Your task to perform on an android device: Set the phone to "Do not disturb". Image 0: 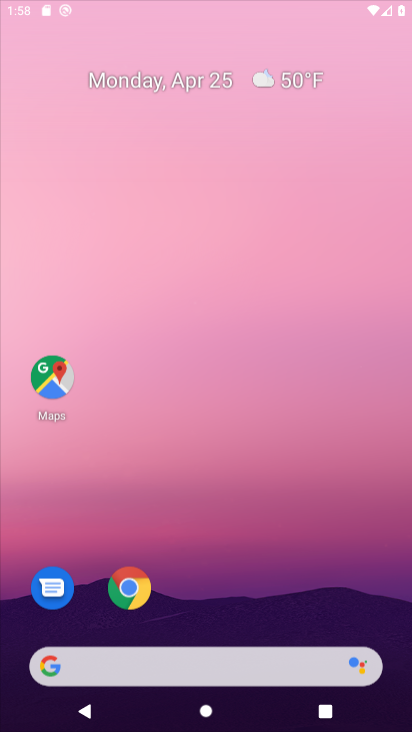
Step 0: click (141, 585)
Your task to perform on an android device: Set the phone to "Do not disturb". Image 1: 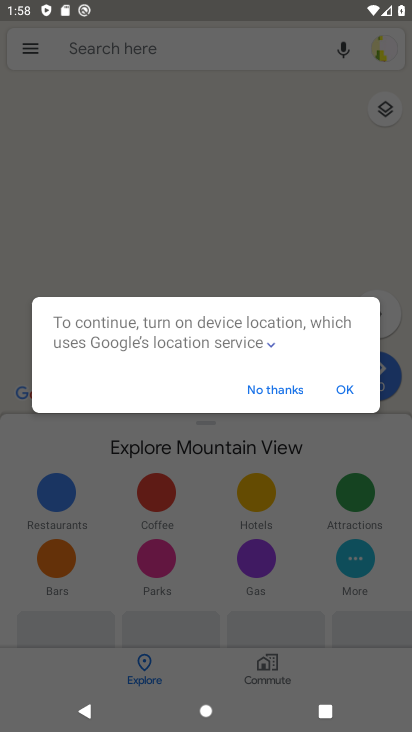
Step 1: press back button
Your task to perform on an android device: Set the phone to "Do not disturb". Image 2: 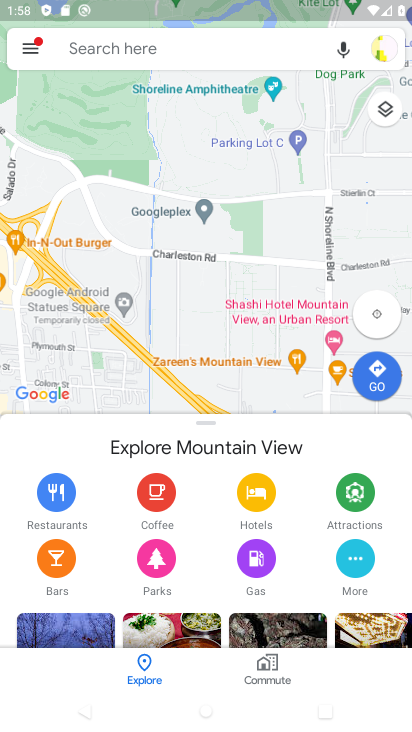
Step 2: press back button
Your task to perform on an android device: Set the phone to "Do not disturb". Image 3: 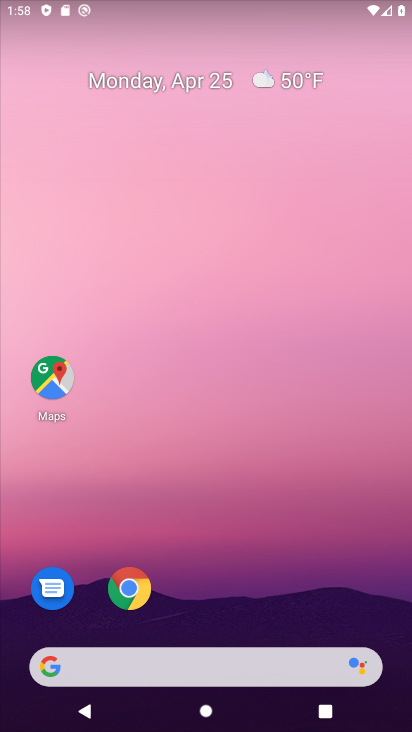
Step 3: drag from (182, 652) to (211, 0)
Your task to perform on an android device: Set the phone to "Do not disturb". Image 4: 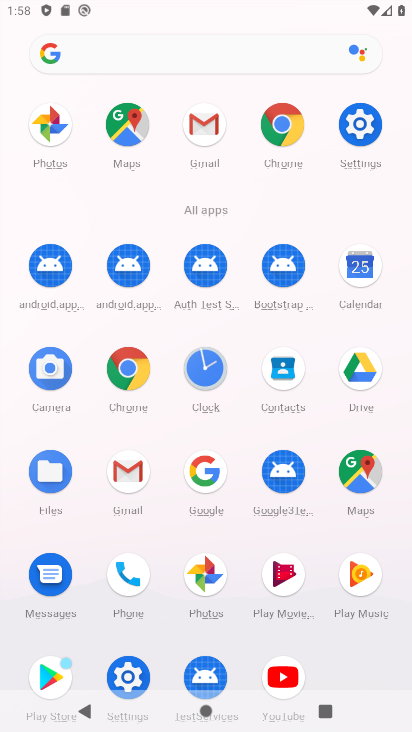
Step 4: click (127, 685)
Your task to perform on an android device: Set the phone to "Do not disturb". Image 5: 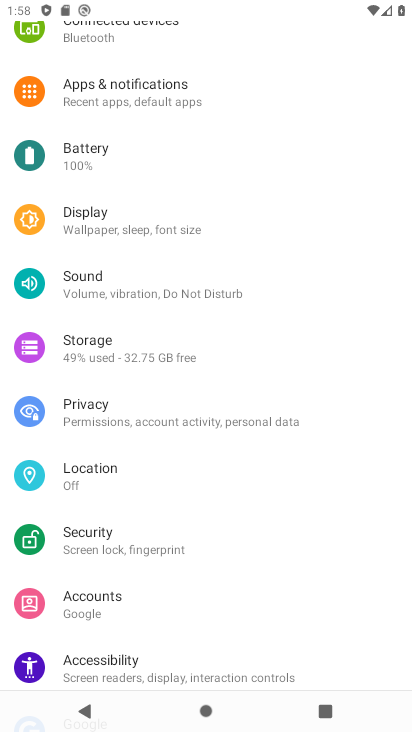
Step 5: click (130, 101)
Your task to perform on an android device: Set the phone to "Do not disturb". Image 6: 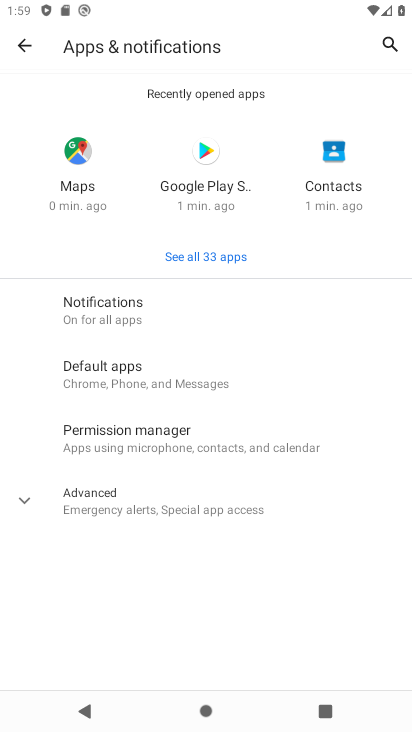
Step 6: click (210, 310)
Your task to perform on an android device: Set the phone to "Do not disturb". Image 7: 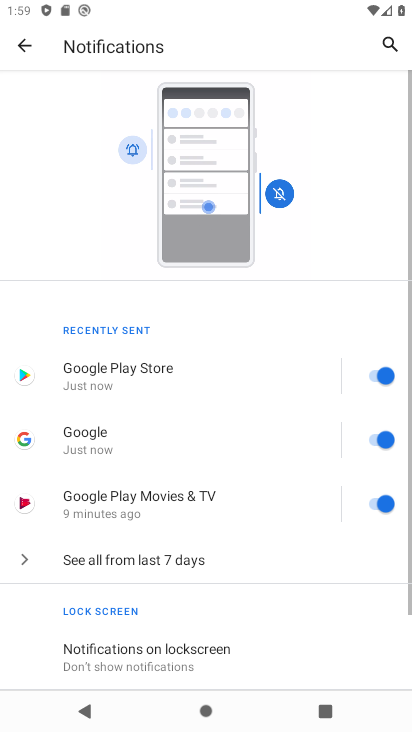
Step 7: drag from (100, 631) to (240, 69)
Your task to perform on an android device: Set the phone to "Do not disturb". Image 8: 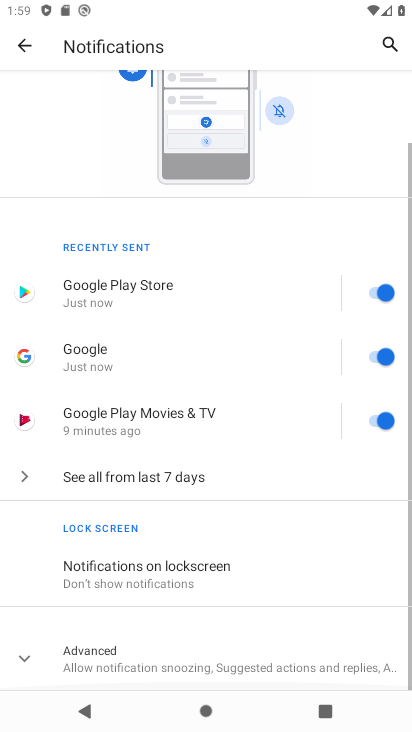
Step 8: drag from (226, 504) to (243, 434)
Your task to perform on an android device: Set the phone to "Do not disturb". Image 9: 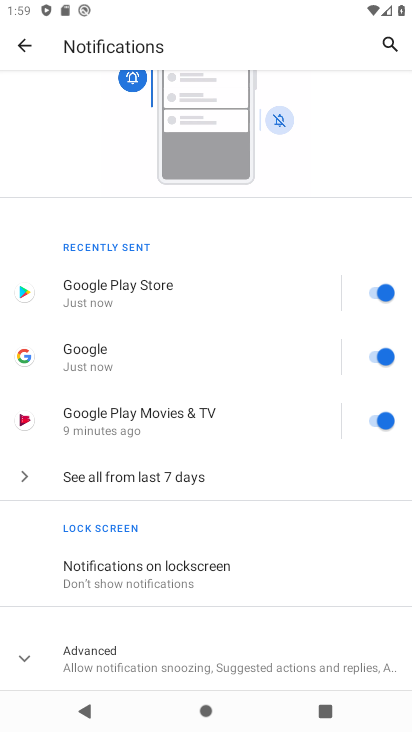
Step 9: click (142, 658)
Your task to perform on an android device: Set the phone to "Do not disturb". Image 10: 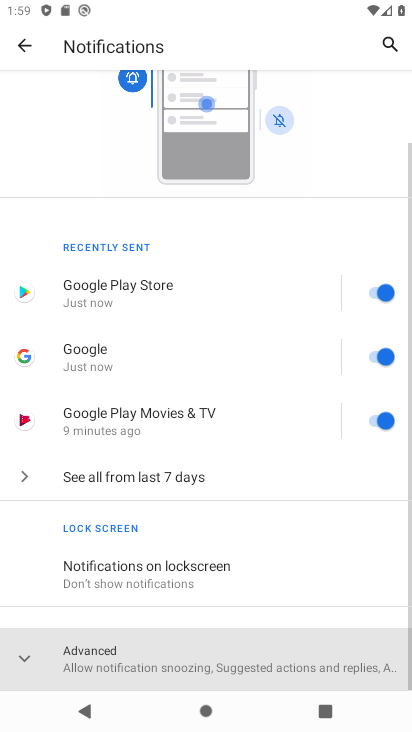
Step 10: drag from (149, 623) to (296, 196)
Your task to perform on an android device: Set the phone to "Do not disturb". Image 11: 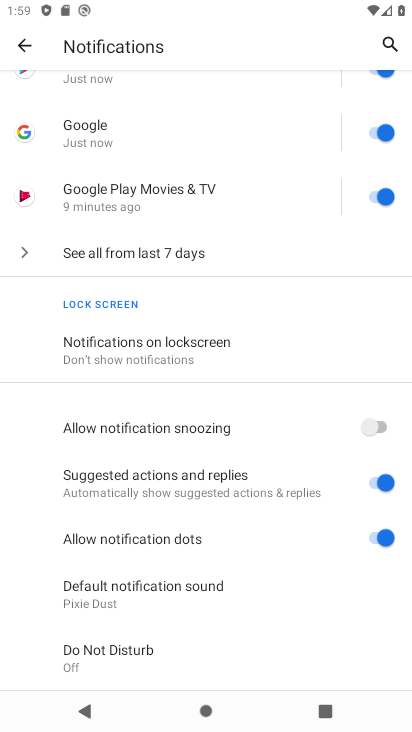
Step 11: click (133, 676)
Your task to perform on an android device: Set the phone to "Do not disturb". Image 12: 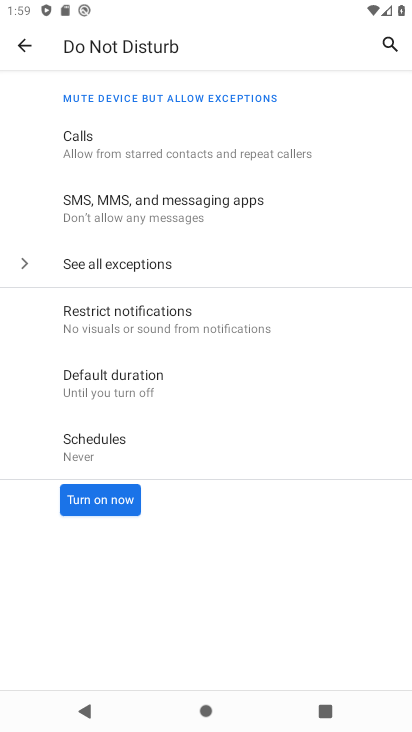
Step 12: click (123, 507)
Your task to perform on an android device: Set the phone to "Do not disturb". Image 13: 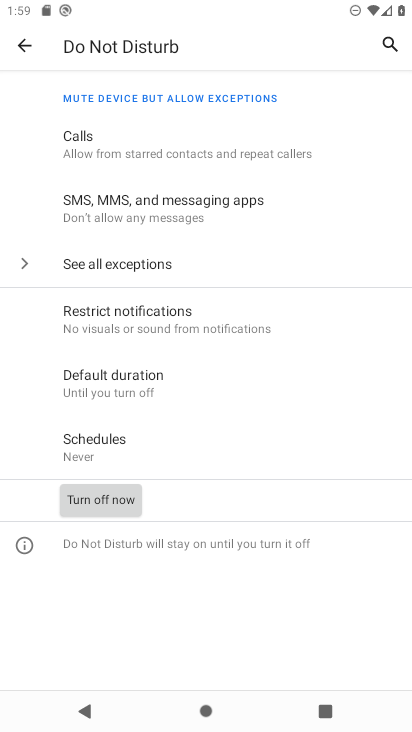
Step 13: task complete